Your task to perform on an android device: turn notification dots off Image 0: 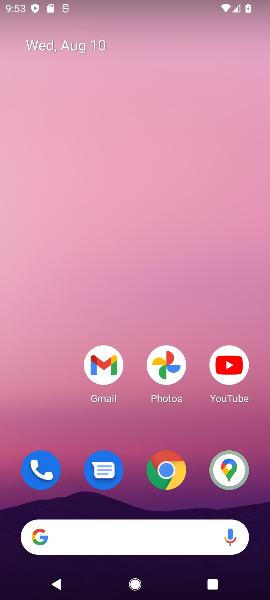
Step 0: drag from (135, 501) to (89, 115)
Your task to perform on an android device: turn notification dots off Image 1: 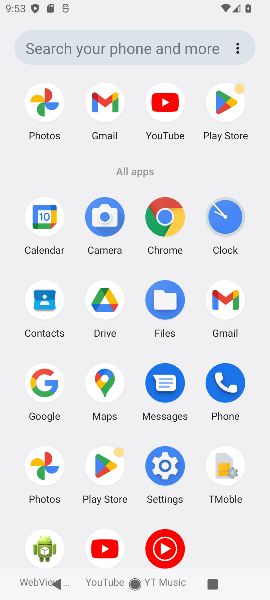
Step 1: click (169, 466)
Your task to perform on an android device: turn notification dots off Image 2: 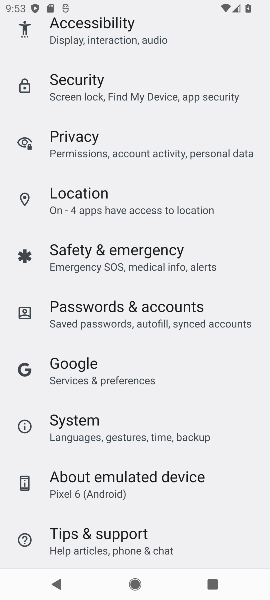
Step 2: drag from (173, 20) to (78, 539)
Your task to perform on an android device: turn notification dots off Image 3: 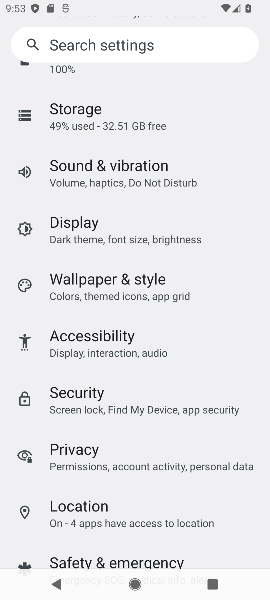
Step 3: drag from (154, 100) to (149, 442)
Your task to perform on an android device: turn notification dots off Image 4: 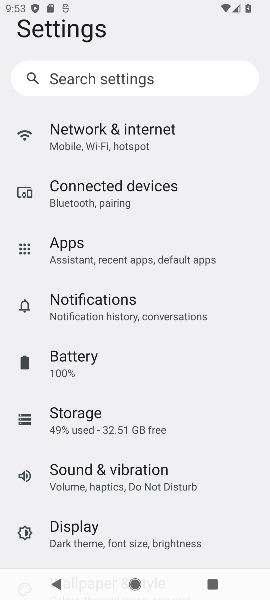
Step 4: click (123, 300)
Your task to perform on an android device: turn notification dots off Image 5: 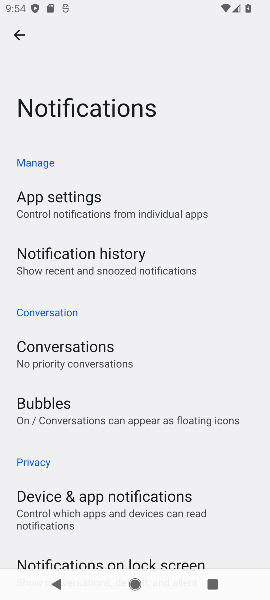
Step 5: drag from (125, 541) to (160, 120)
Your task to perform on an android device: turn notification dots off Image 6: 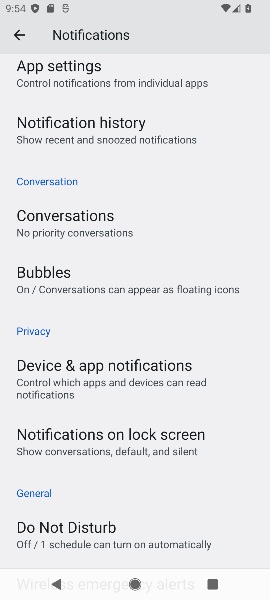
Step 6: drag from (125, 498) to (112, 185)
Your task to perform on an android device: turn notification dots off Image 7: 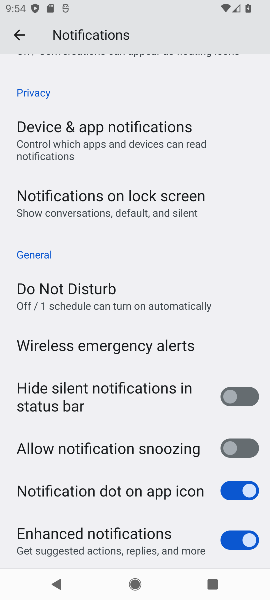
Step 7: click (233, 490)
Your task to perform on an android device: turn notification dots off Image 8: 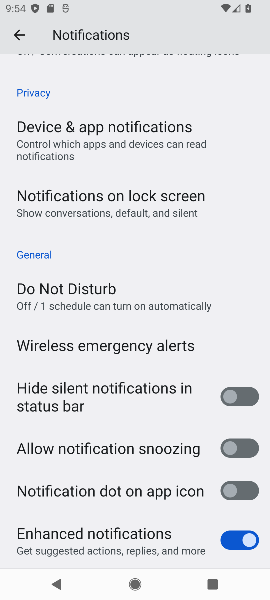
Step 8: task complete